Your task to perform on an android device: turn pop-ups off in chrome Image 0: 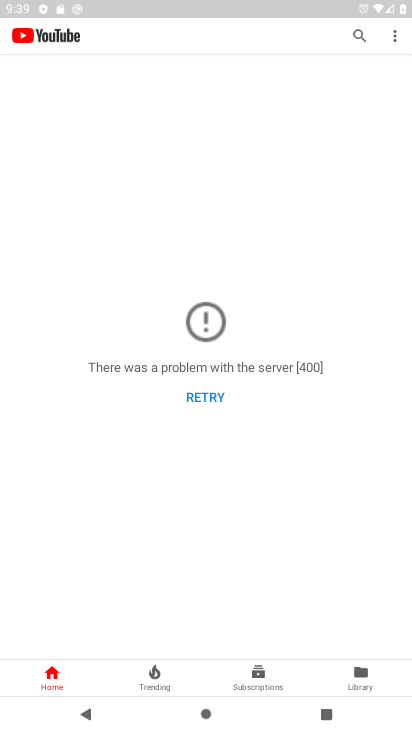
Step 0: press back button
Your task to perform on an android device: turn pop-ups off in chrome Image 1: 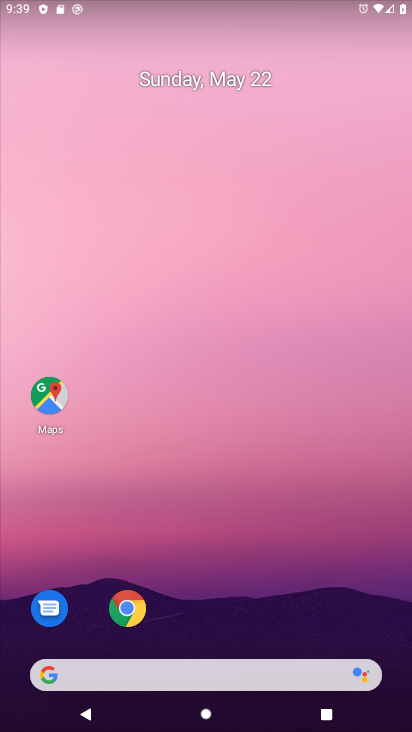
Step 1: drag from (256, 581) to (263, 19)
Your task to perform on an android device: turn pop-ups off in chrome Image 2: 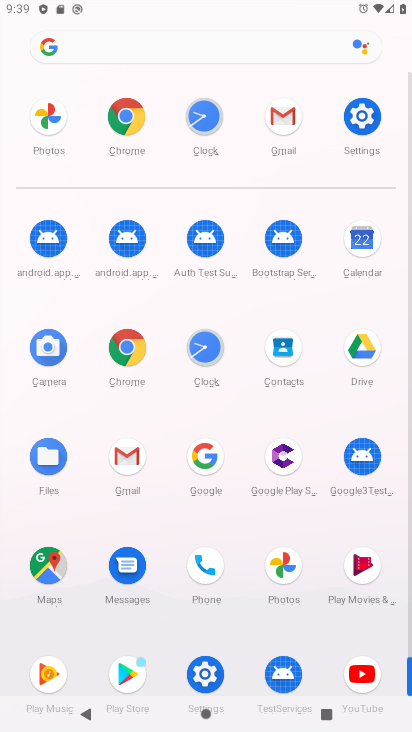
Step 2: drag from (10, 508) to (13, 261)
Your task to perform on an android device: turn pop-ups off in chrome Image 3: 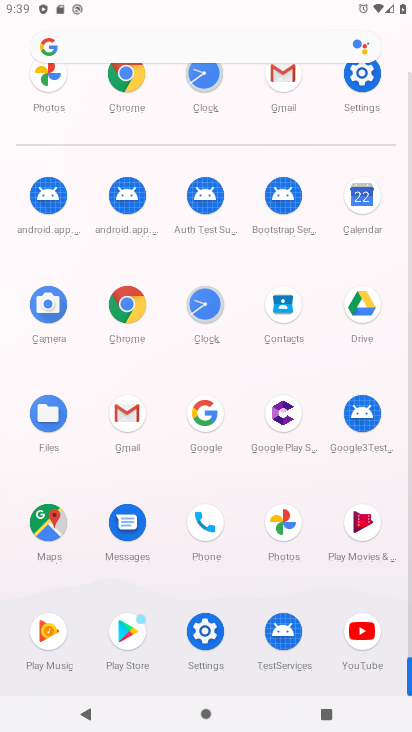
Step 3: click (128, 304)
Your task to perform on an android device: turn pop-ups off in chrome Image 4: 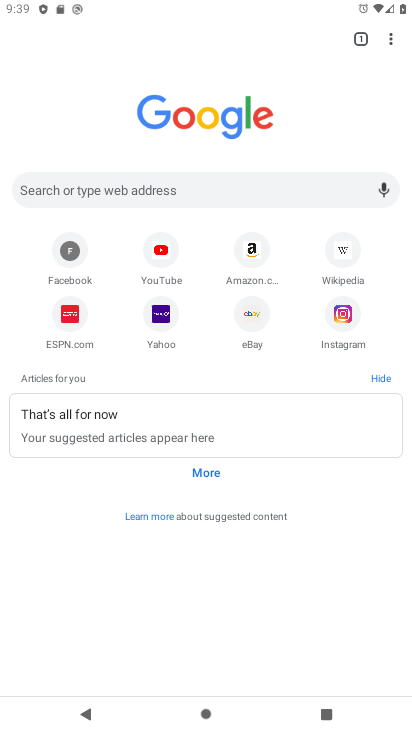
Step 4: drag from (390, 37) to (258, 327)
Your task to perform on an android device: turn pop-ups off in chrome Image 5: 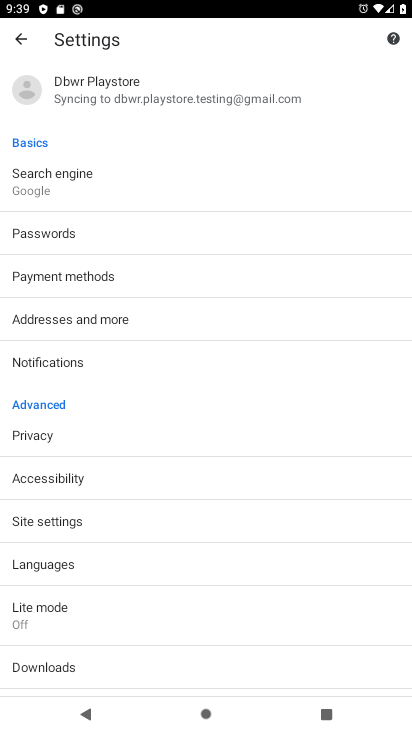
Step 5: click (69, 522)
Your task to perform on an android device: turn pop-ups off in chrome Image 6: 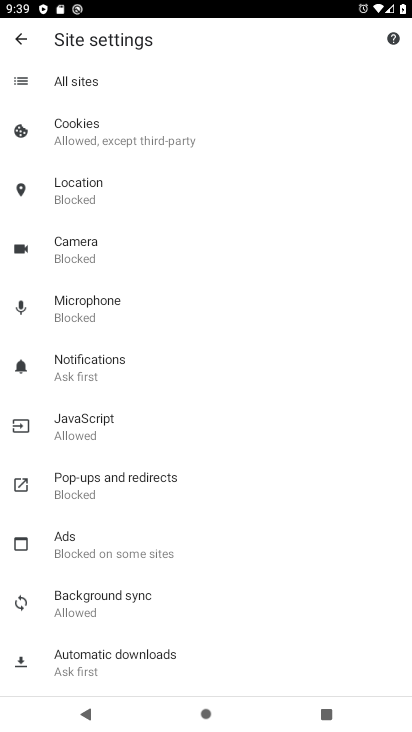
Step 6: click (117, 484)
Your task to perform on an android device: turn pop-ups off in chrome Image 7: 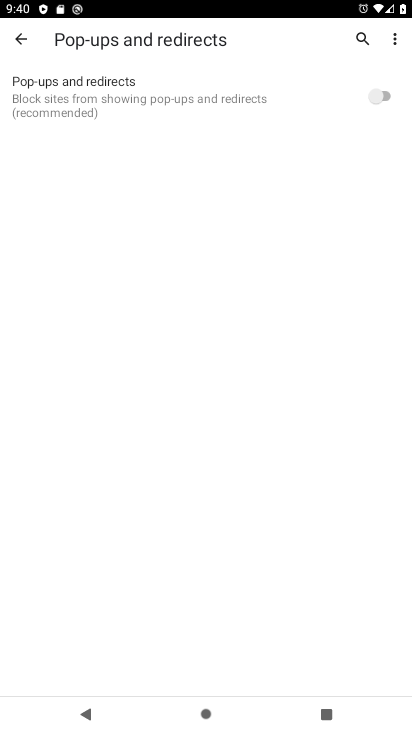
Step 7: task complete